Your task to perform on an android device: Go to Google maps Image 0: 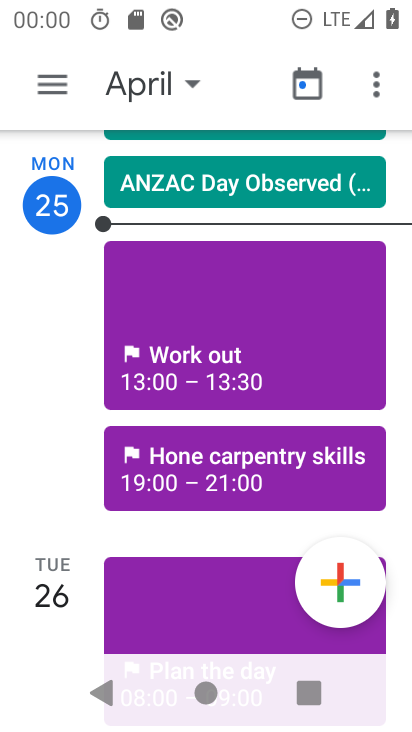
Step 0: press home button
Your task to perform on an android device: Go to Google maps Image 1: 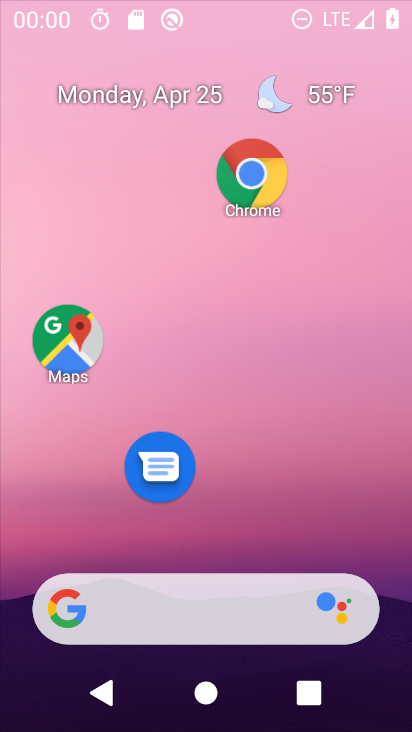
Step 1: press home button
Your task to perform on an android device: Go to Google maps Image 2: 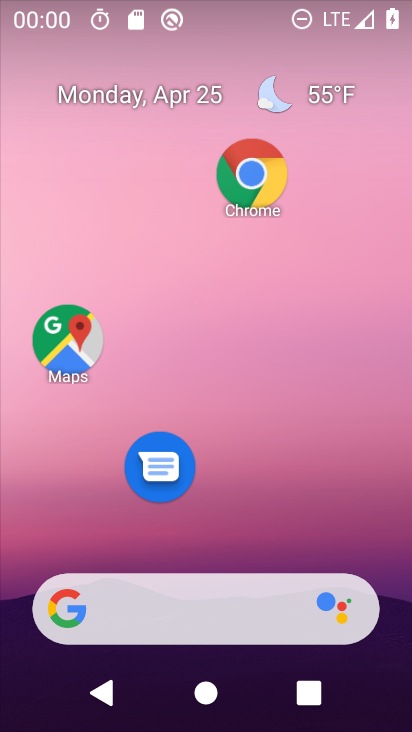
Step 2: click (63, 343)
Your task to perform on an android device: Go to Google maps Image 3: 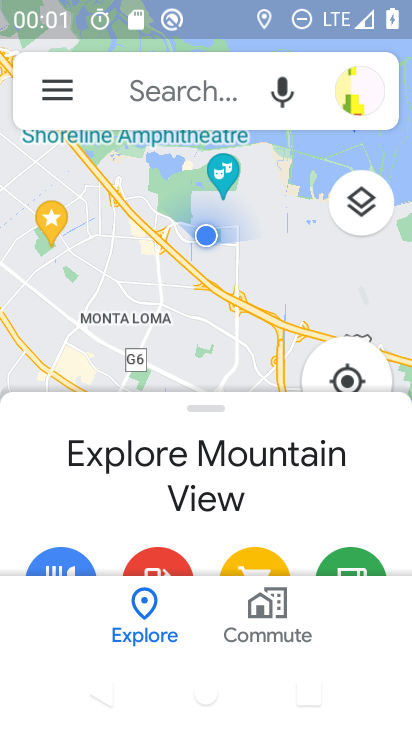
Step 3: task complete